Your task to perform on an android device: Open Chrome and go to the settings page Image 0: 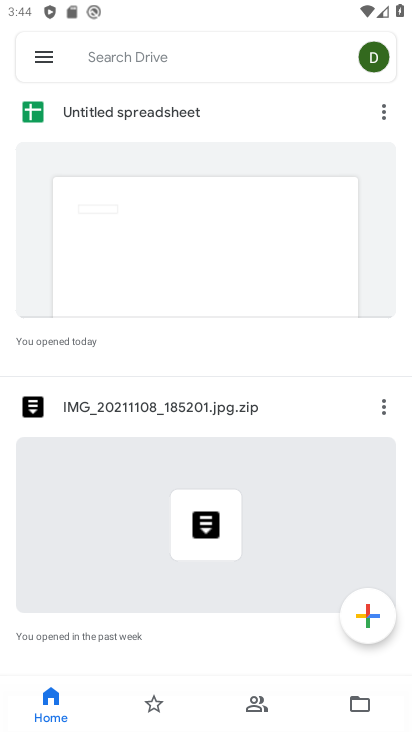
Step 0: press home button
Your task to perform on an android device: Open Chrome and go to the settings page Image 1: 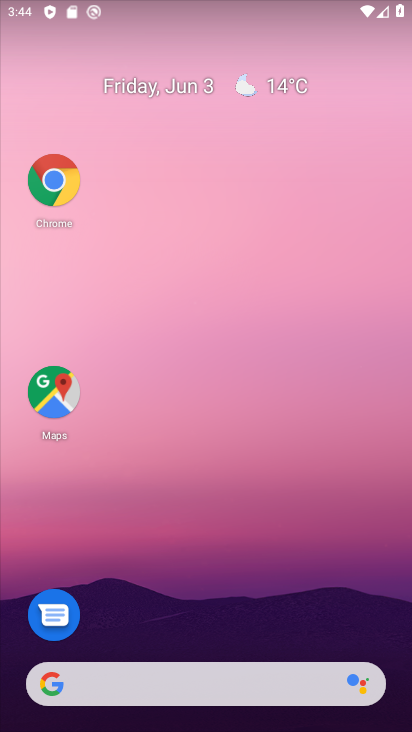
Step 1: click (61, 188)
Your task to perform on an android device: Open Chrome and go to the settings page Image 2: 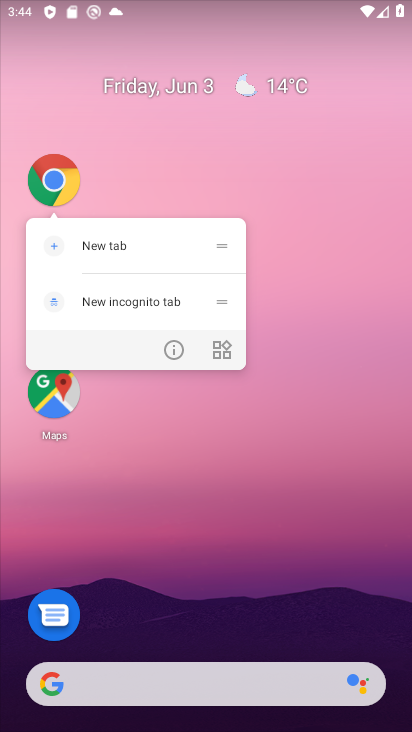
Step 2: click (47, 184)
Your task to perform on an android device: Open Chrome and go to the settings page Image 3: 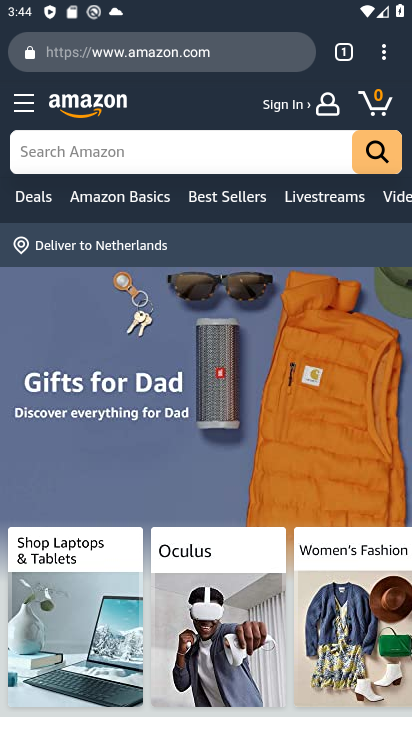
Step 3: click (384, 51)
Your task to perform on an android device: Open Chrome and go to the settings page Image 4: 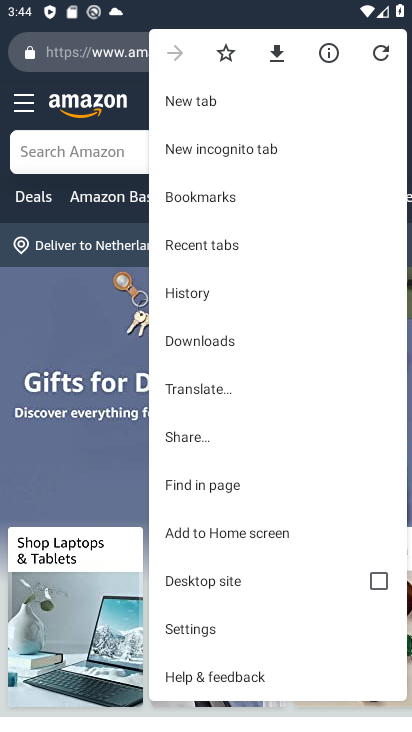
Step 4: click (196, 635)
Your task to perform on an android device: Open Chrome and go to the settings page Image 5: 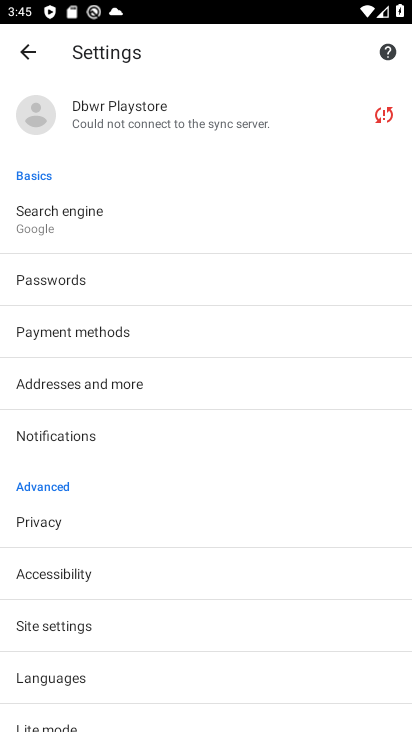
Step 5: task complete